Your task to perform on an android device: create a new album in the google photos Image 0: 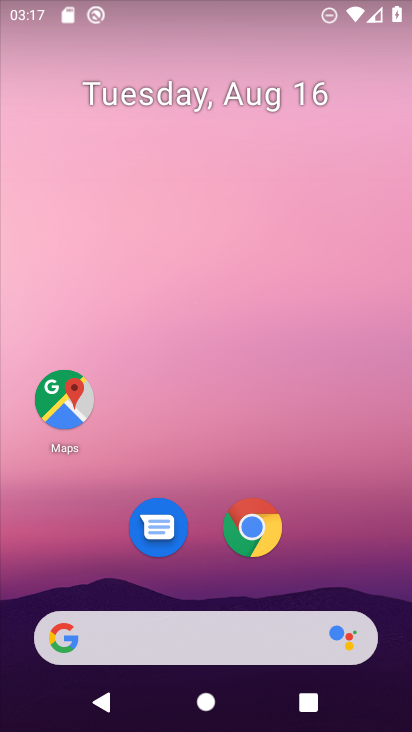
Step 0: drag from (206, 590) to (216, 0)
Your task to perform on an android device: create a new album in the google photos Image 1: 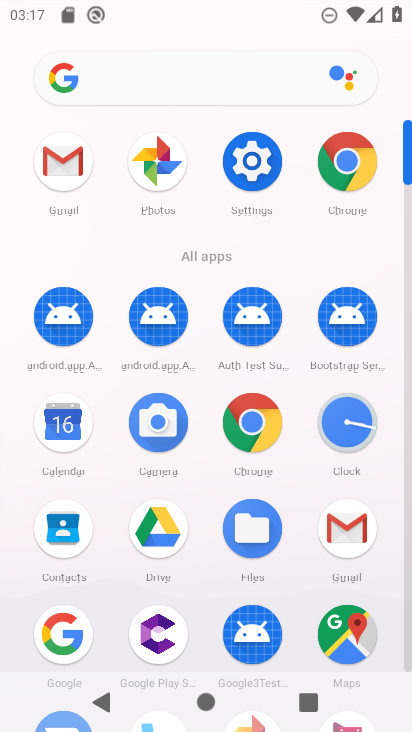
Step 1: drag from (201, 616) to (198, 107)
Your task to perform on an android device: create a new album in the google photos Image 2: 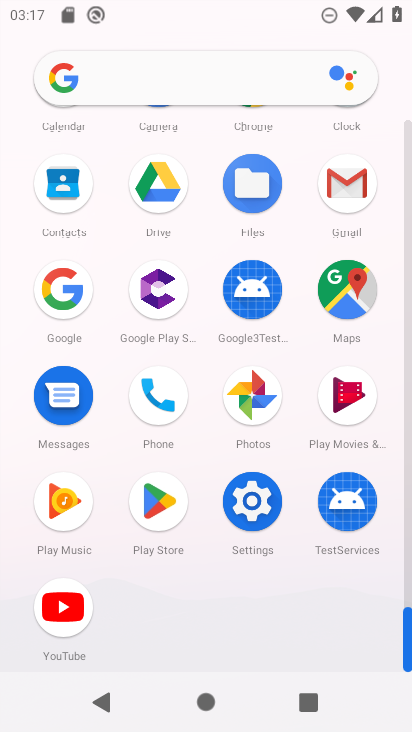
Step 2: click (253, 393)
Your task to perform on an android device: create a new album in the google photos Image 3: 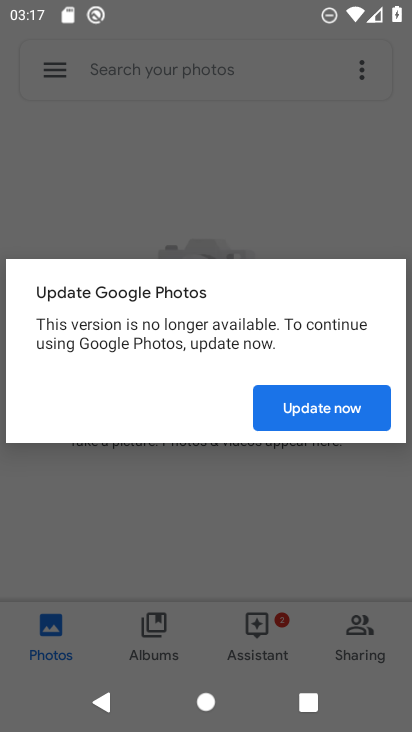
Step 3: click (199, 572)
Your task to perform on an android device: create a new album in the google photos Image 4: 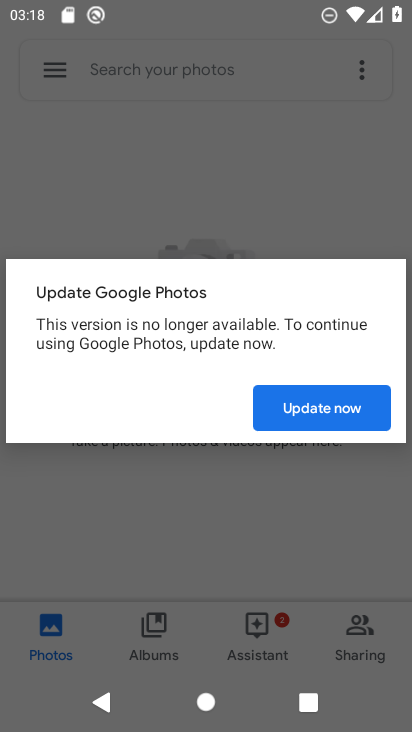
Step 4: click (320, 422)
Your task to perform on an android device: create a new album in the google photos Image 5: 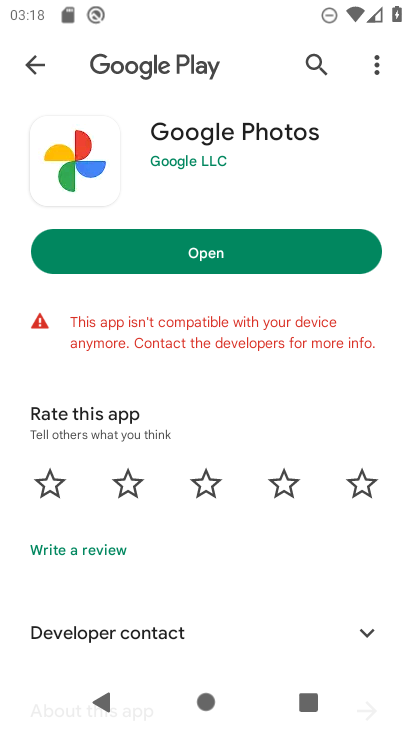
Step 5: click (208, 254)
Your task to perform on an android device: create a new album in the google photos Image 6: 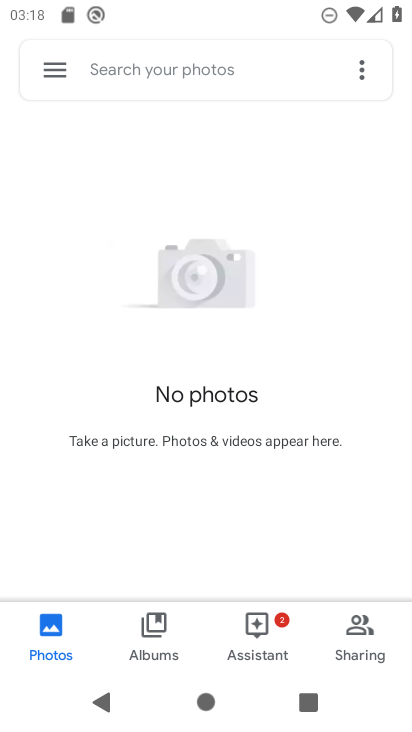
Step 6: click (147, 624)
Your task to perform on an android device: create a new album in the google photos Image 7: 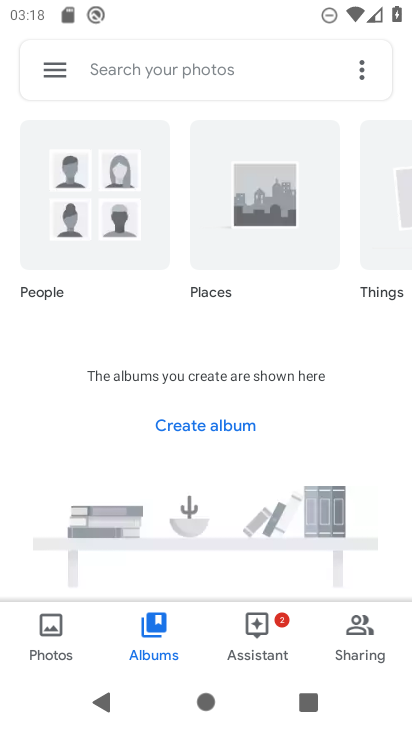
Step 7: click (361, 69)
Your task to perform on an android device: create a new album in the google photos Image 8: 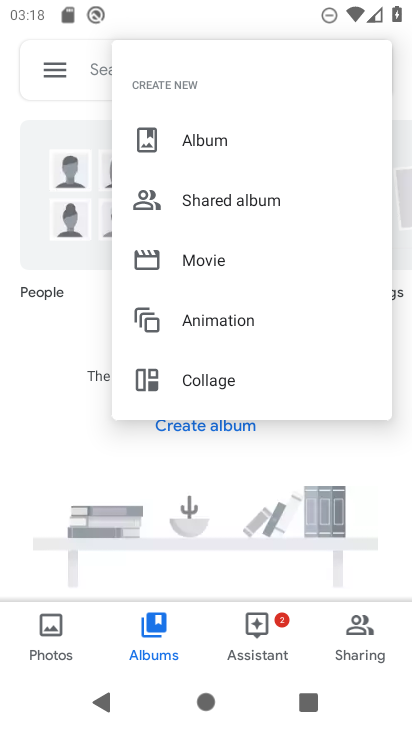
Step 8: click (228, 138)
Your task to perform on an android device: create a new album in the google photos Image 9: 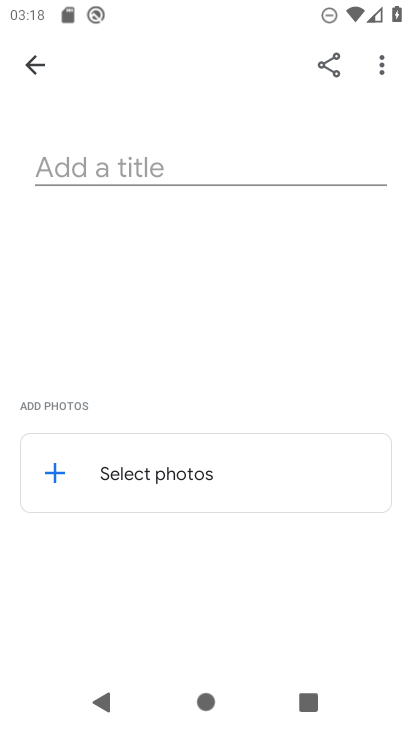
Step 9: click (58, 475)
Your task to perform on an android device: create a new album in the google photos Image 10: 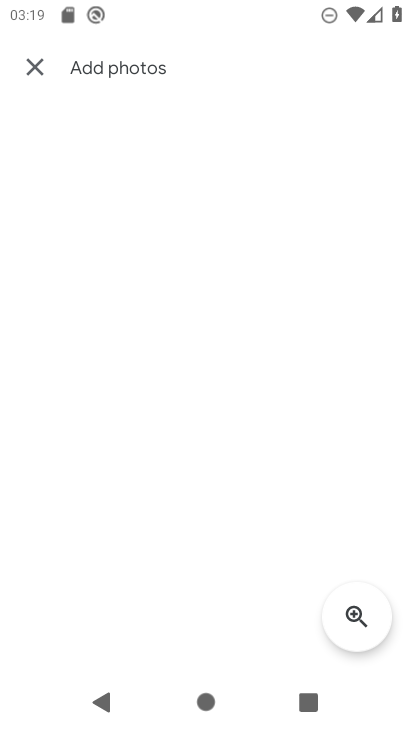
Step 10: task complete